Your task to perform on an android device: Show the shopping cart on costco. Search for "usb-c to usb-b" on costco, select the first entry, and add it to the cart. Image 0: 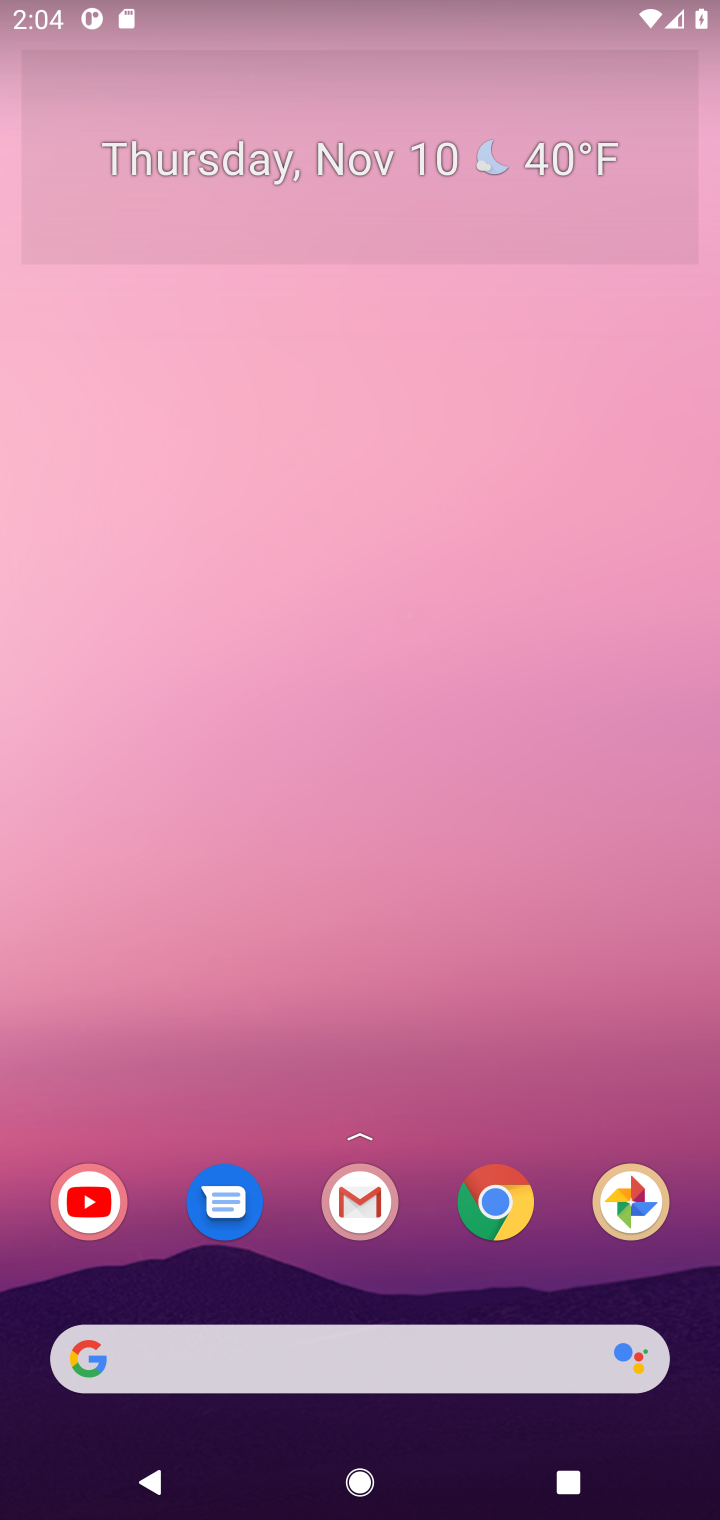
Step 0: click (497, 1199)
Your task to perform on an android device: Show the shopping cart on costco. Search for "usb-c to usb-b" on costco, select the first entry, and add it to the cart. Image 1: 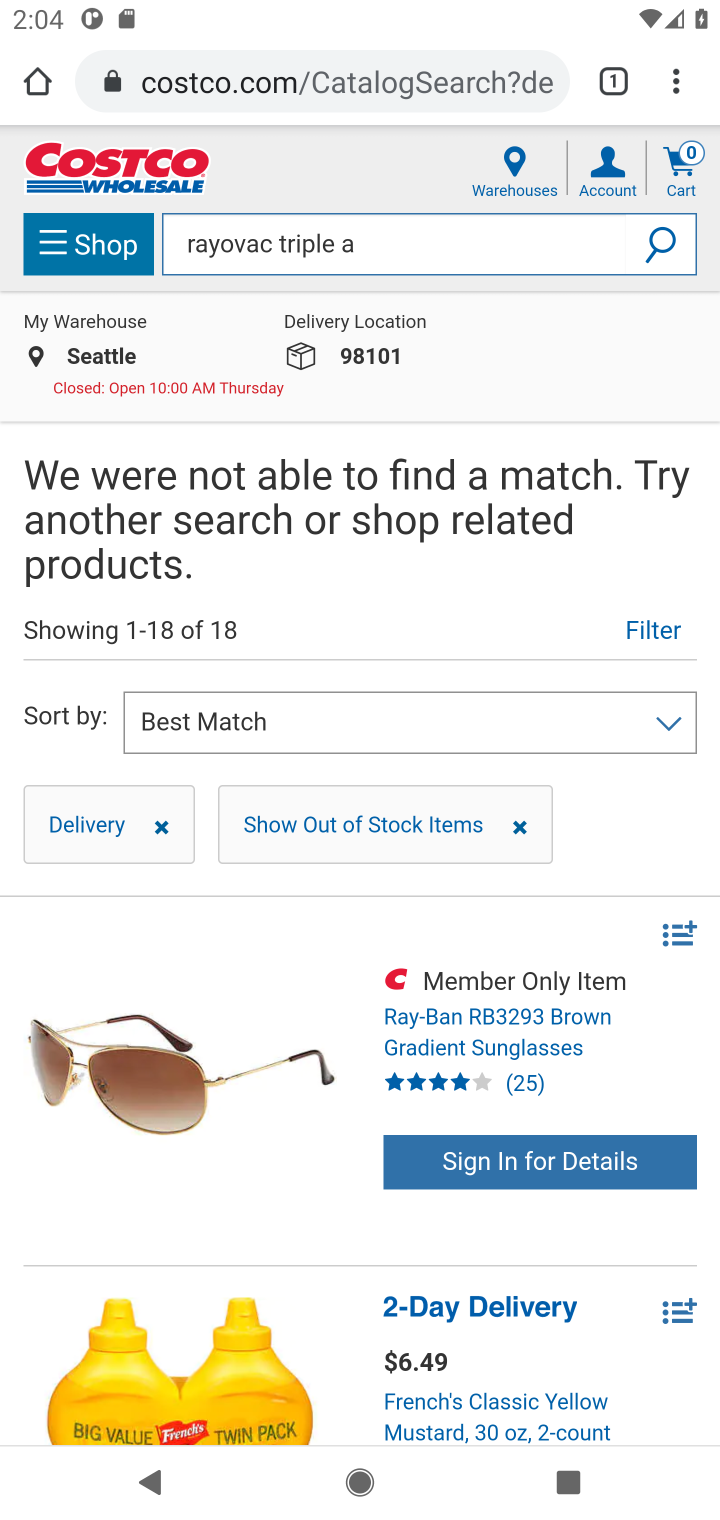
Step 1: click (415, 242)
Your task to perform on an android device: Show the shopping cart on costco. Search for "usb-c to usb-b" on costco, select the first entry, and add it to the cart. Image 2: 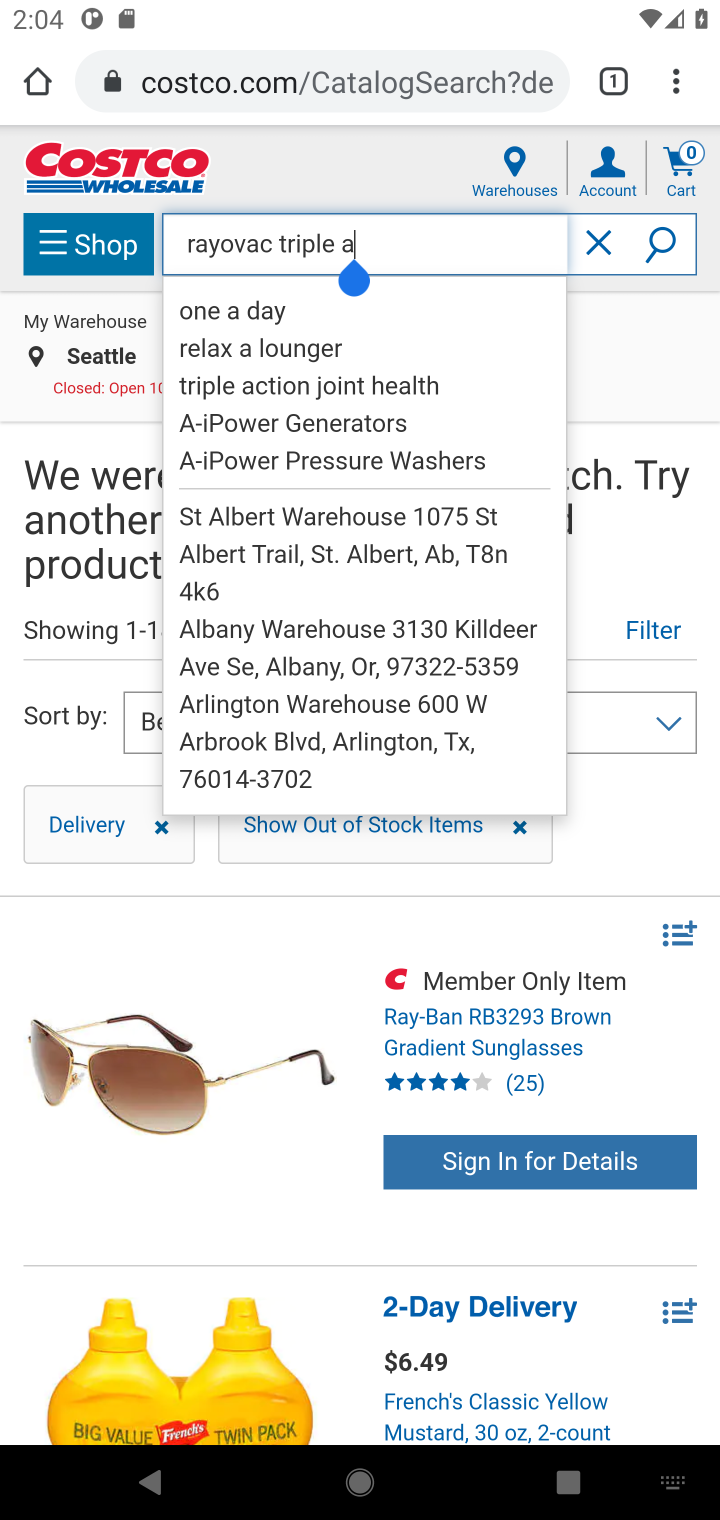
Step 2: click (599, 234)
Your task to perform on an android device: Show the shopping cart on costco. Search for "usb-c to usb-b" on costco, select the first entry, and add it to the cart. Image 3: 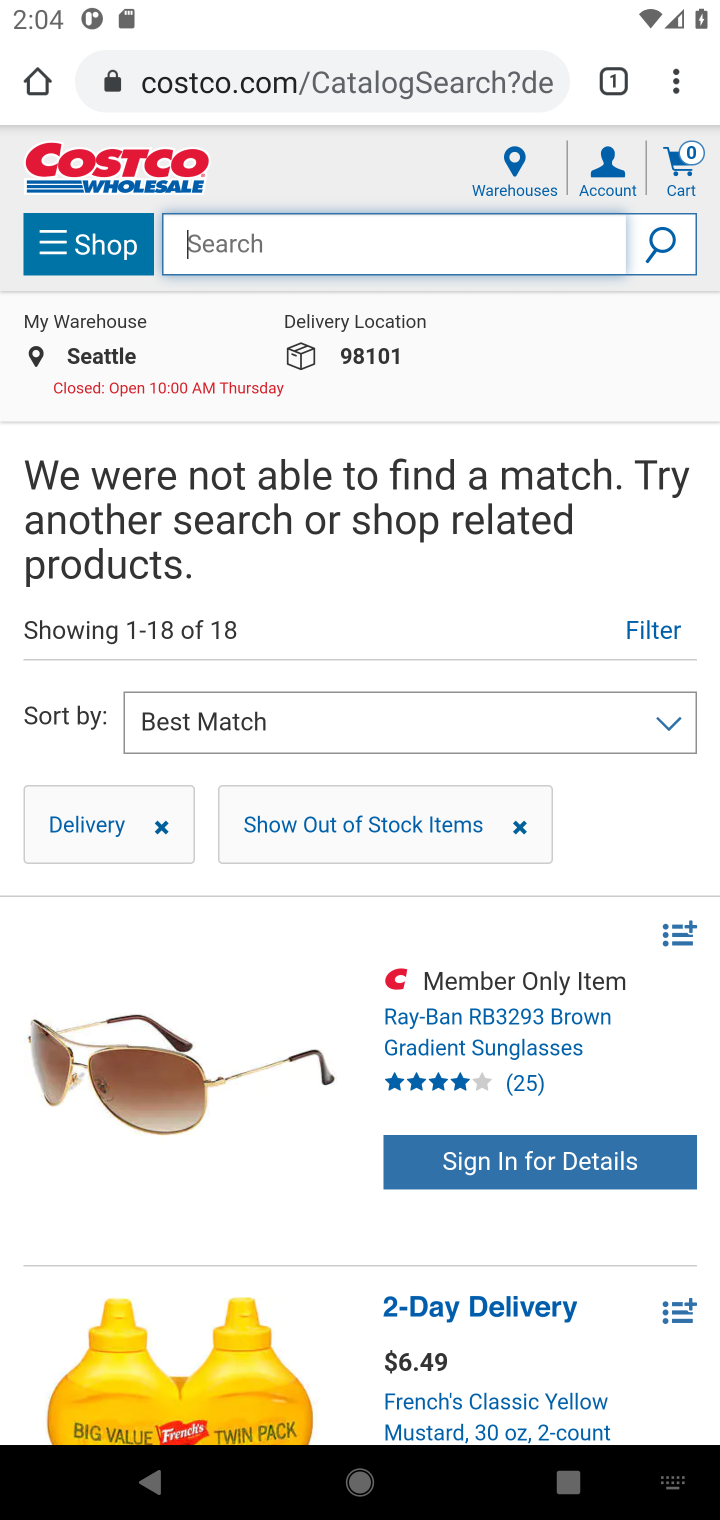
Step 3: click (389, 244)
Your task to perform on an android device: Show the shopping cart on costco. Search for "usb-c to usb-b" on costco, select the first entry, and add it to the cart. Image 4: 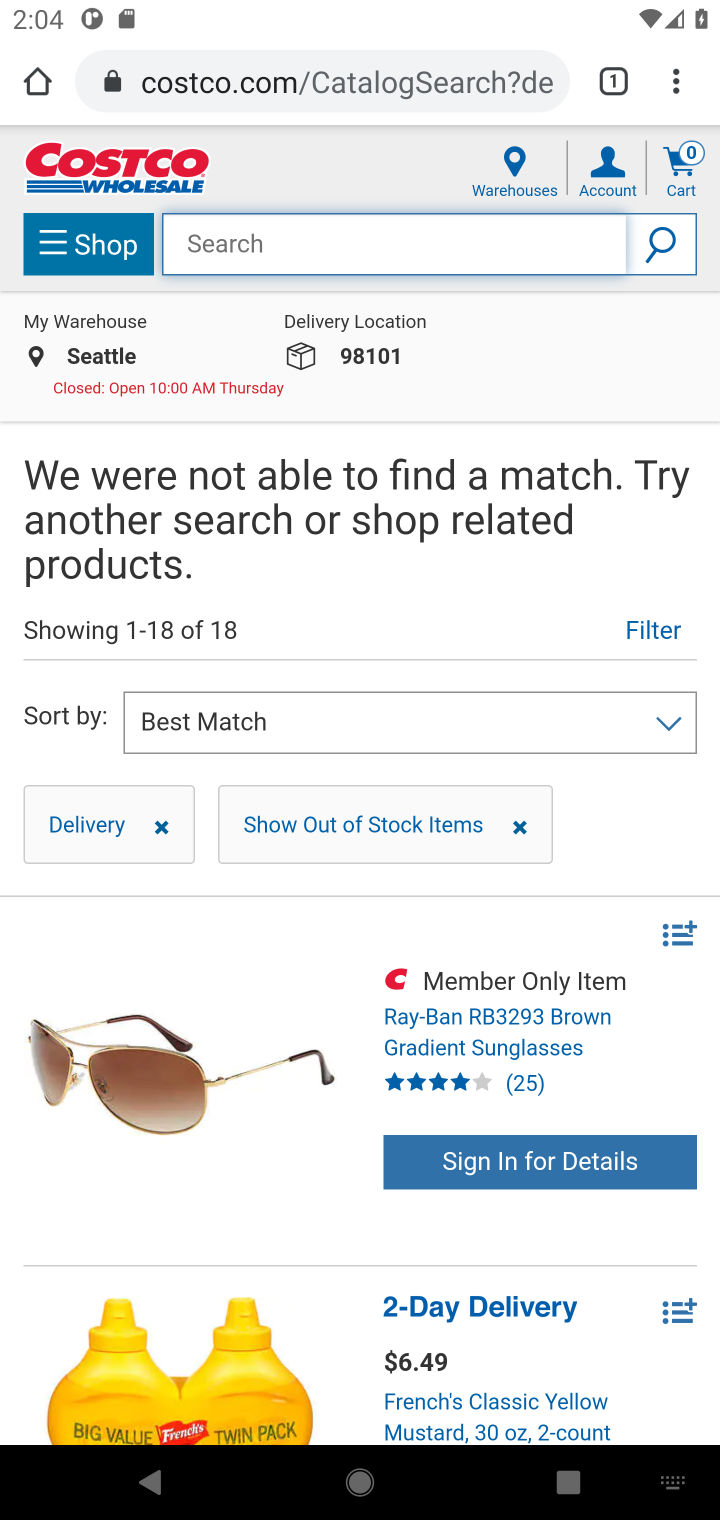
Step 4: type "usb-c to usb-b"
Your task to perform on an android device: Show the shopping cart on costco. Search for "usb-c to usb-b" on costco, select the first entry, and add it to the cart. Image 5: 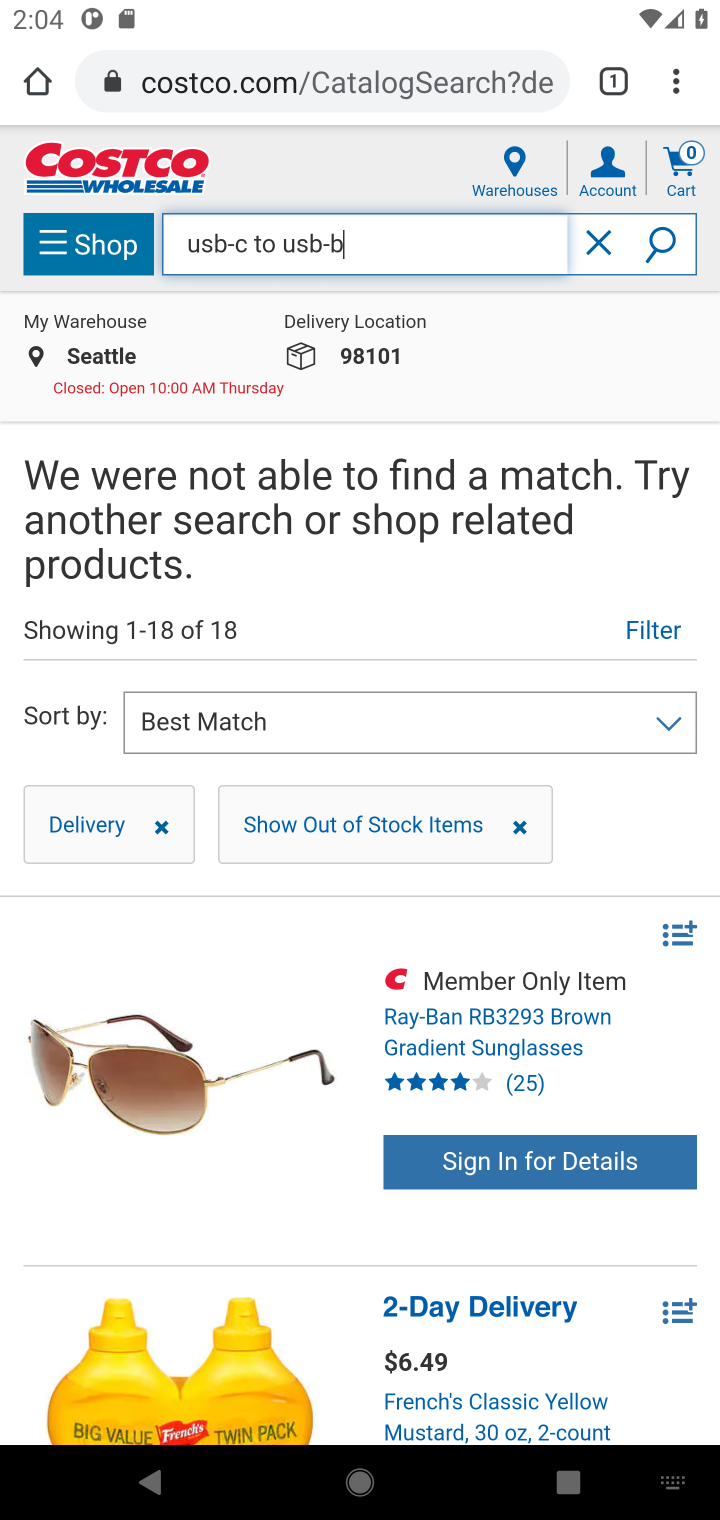
Step 5: press enter
Your task to perform on an android device: Show the shopping cart on costco. Search for "usb-c to usb-b" on costco, select the first entry, and add it to the cart. Image 6: 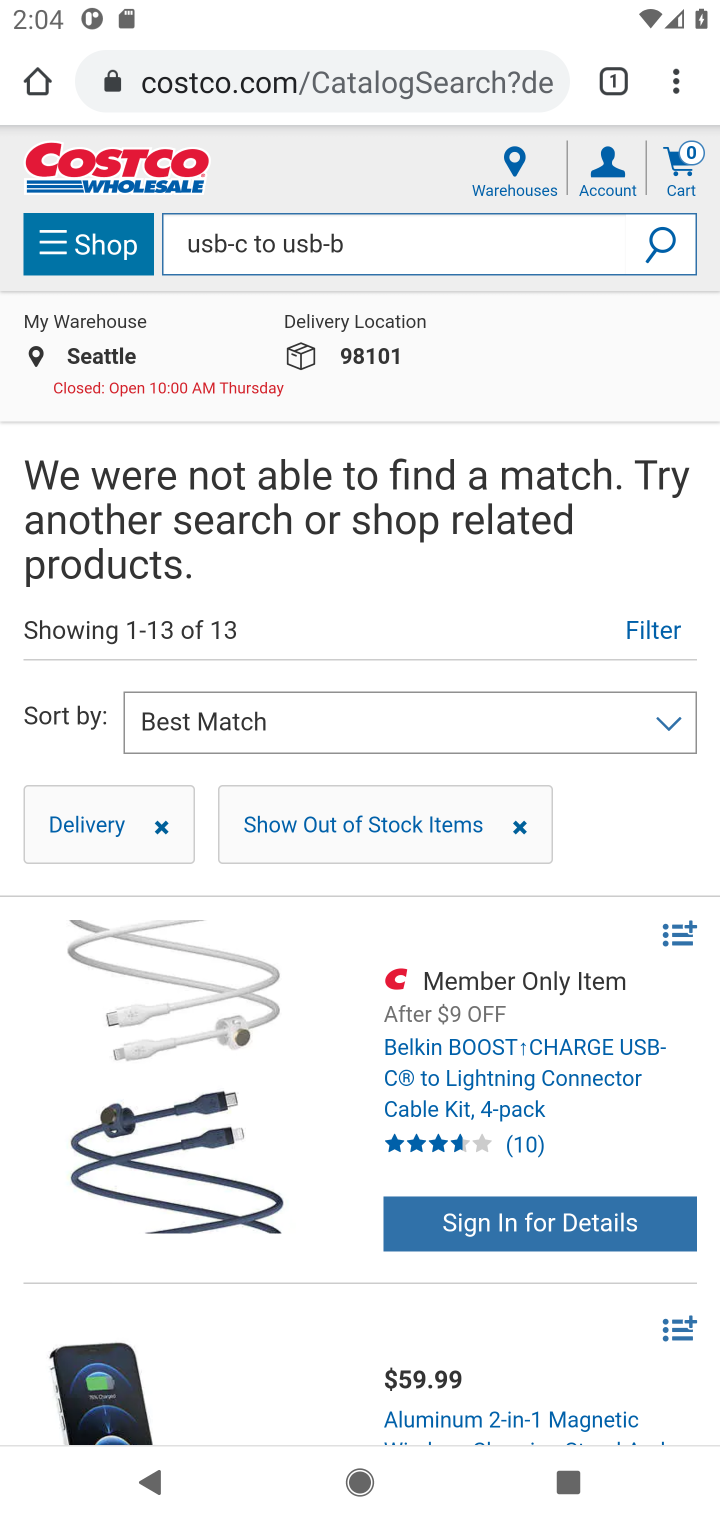
Step 6: task complete